Your task to perform on an android device: Toggle the flashlight Image 0: 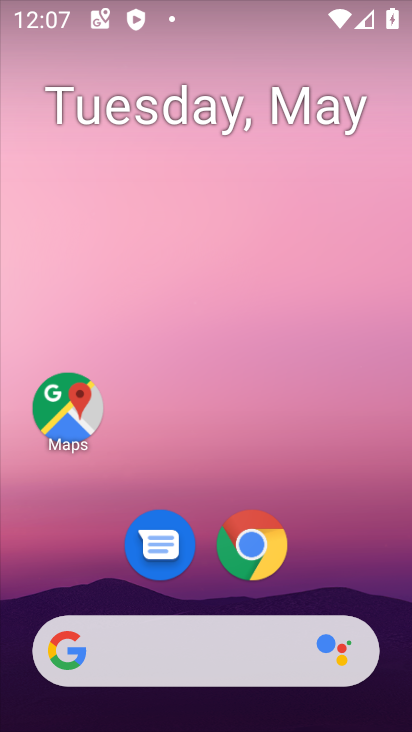
Step 0: drag from (211, 582) to (200, 72)
Your task to perform on an android device: Toggle the flashlight Image 1: 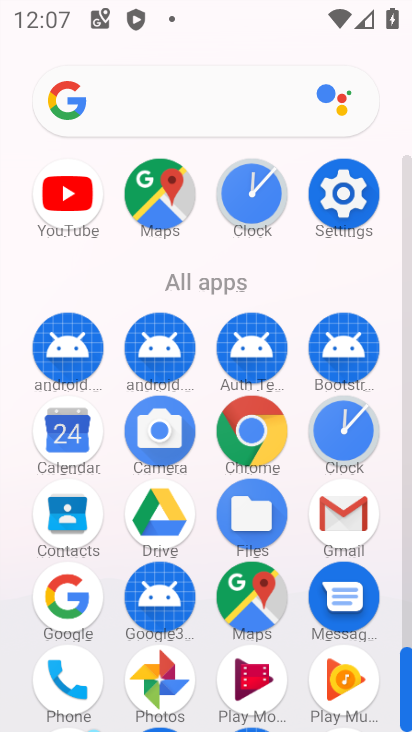
Step 1: click (348, 199)
Your task to perform on an android device: Toggle the flashlight Image 2: 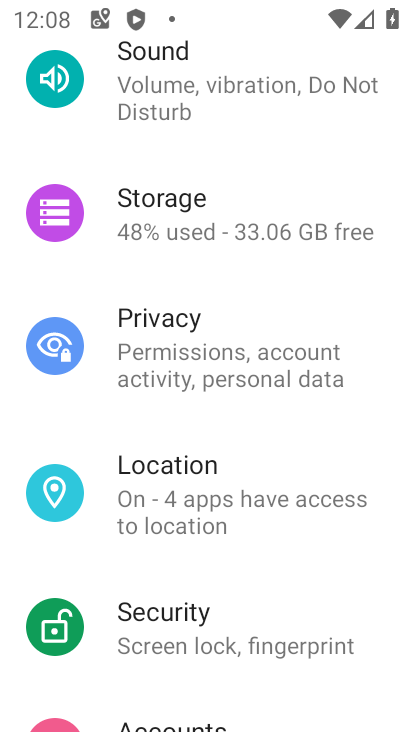
Step 2: task complete